Your task to perform on an android device: Open sound settings Image 0: 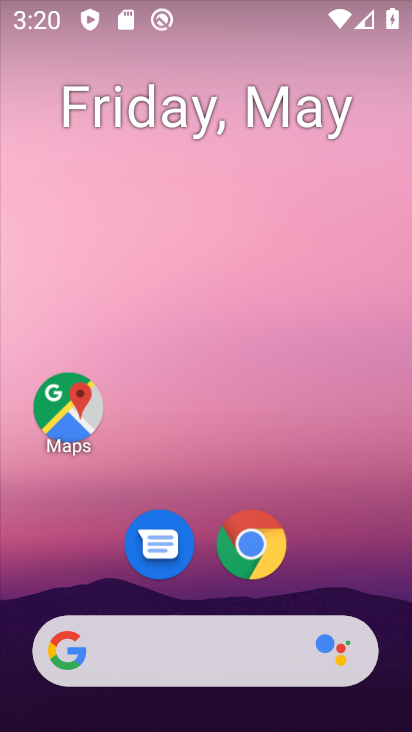
Step 0: drag from (214, 612) to (132, 50)
Your task to perform on an android device: Open sound settings Image 1: 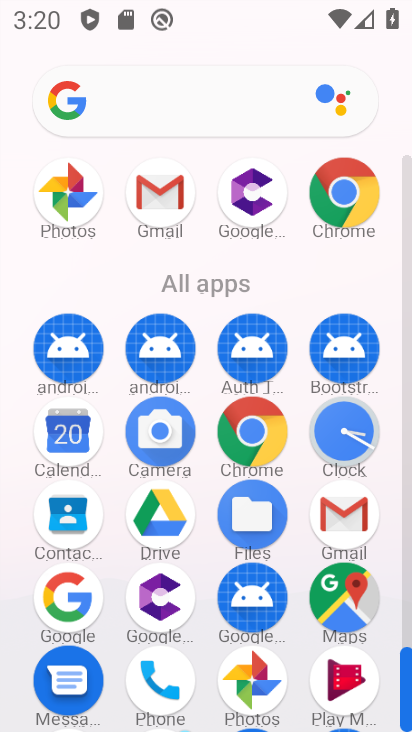
Step 1: drag from (207, 587) to (188, 218)
Your task to perform on an android device: Open sound settings Image 2: 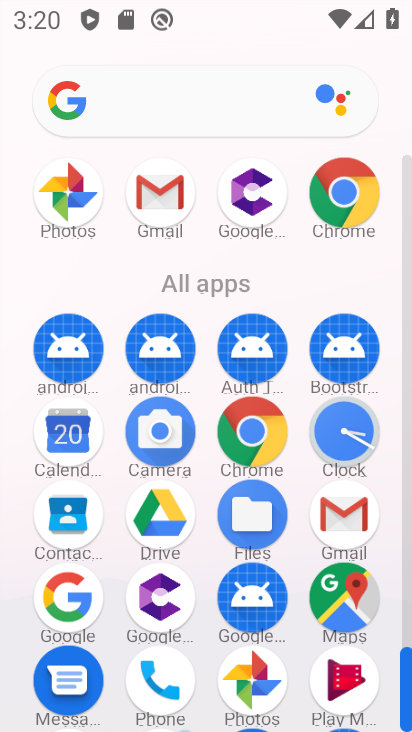
Step 2: drag from (223, 457) to (220, 175)
Your task to perform on an android device: Open sound settings Image 3: 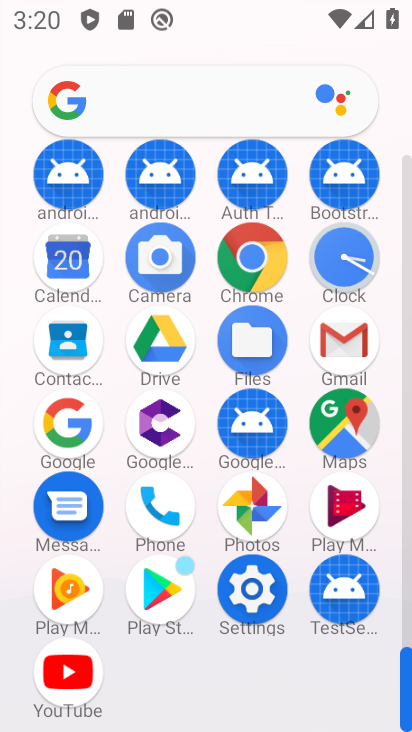
Step 3: drag from (219, 492) to (231, 203)
Your task to perform on an android device: Open sound settings Image 4: 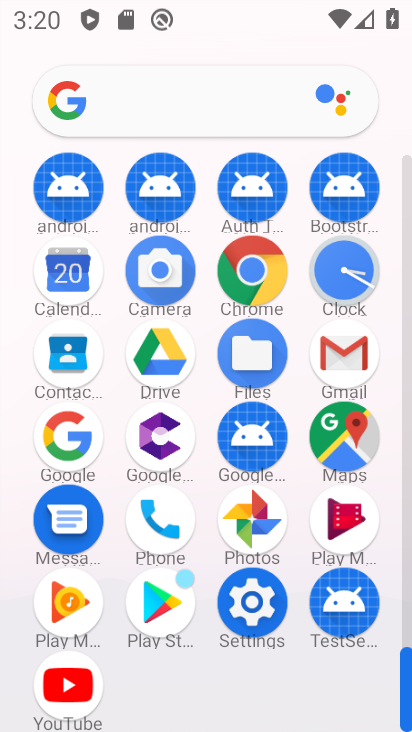
Step 4: click (238, 598)
Your task to perform on an android device: Open sound settings Image 5: 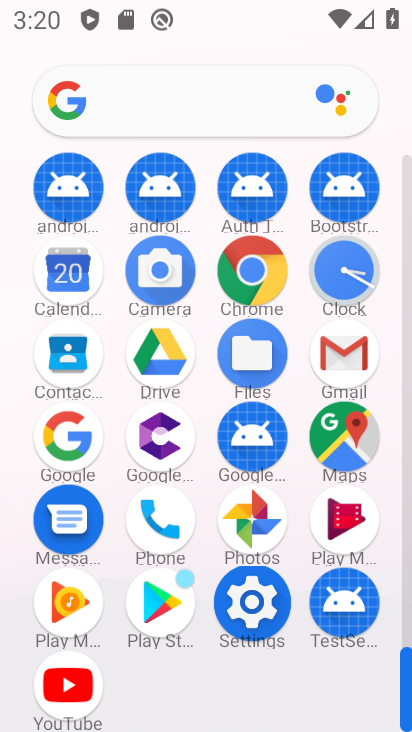
Step 5: click (240, 601)
Your task to perform on an android device: Open sound settings Image 6: 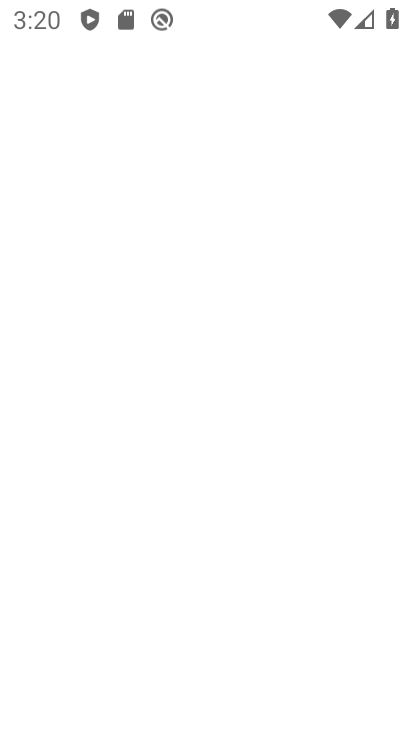
Step 6: click (252, 605)
Your task to perform on an android device: Open sound settings Image 7: 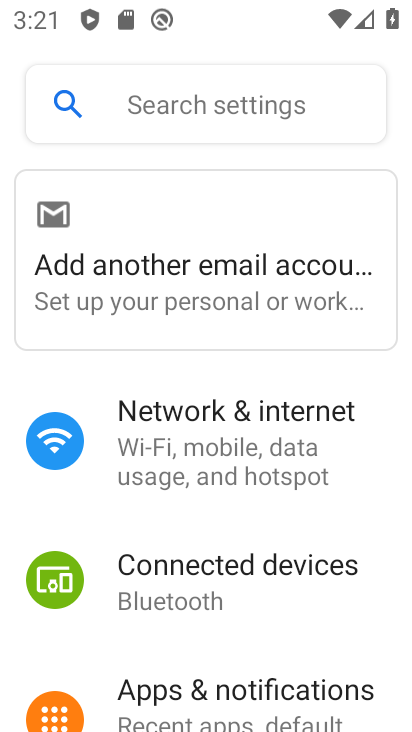
Step 7: drag from (195, 591) to (216, 158)
Your task to perform on an android device: Open sound settings Image 8: 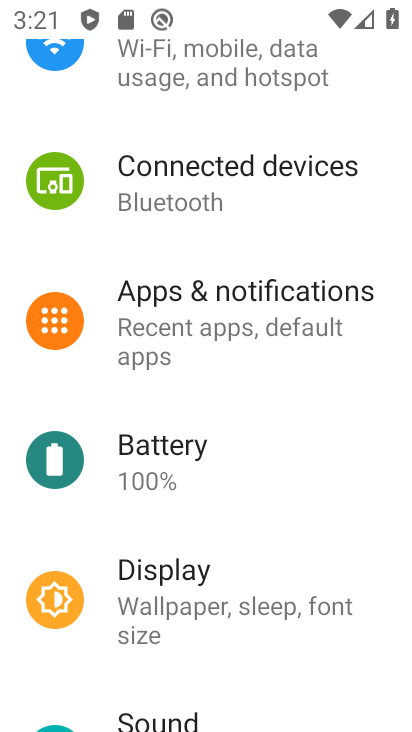
Step 8: drag from (229, 452) to (251, 99)
Your task to perform on an android device: Open sound settings Image 9: 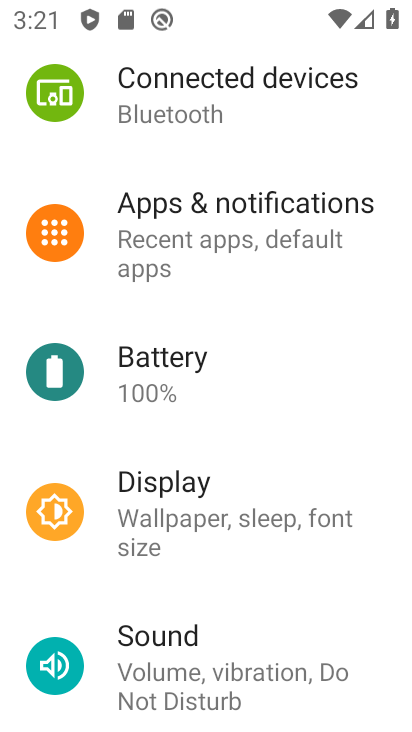
Step 9: click (181, 670)
Your task to perform on an android device: Open sound settings Image 10: 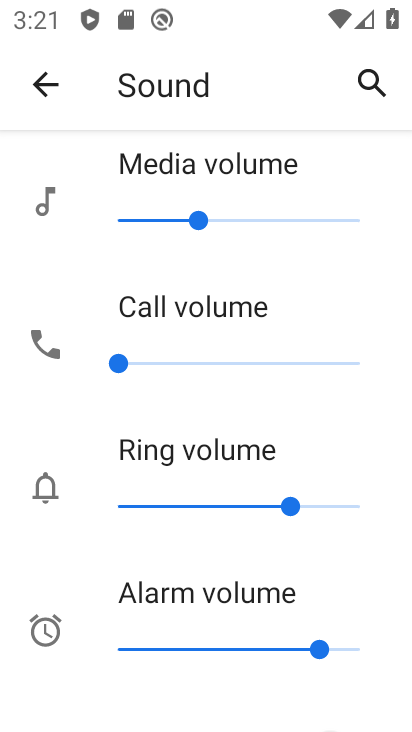
Step 10: task complete